Your task to perform on an android device: Open the phone app and click the voicemail tab. Image 0: 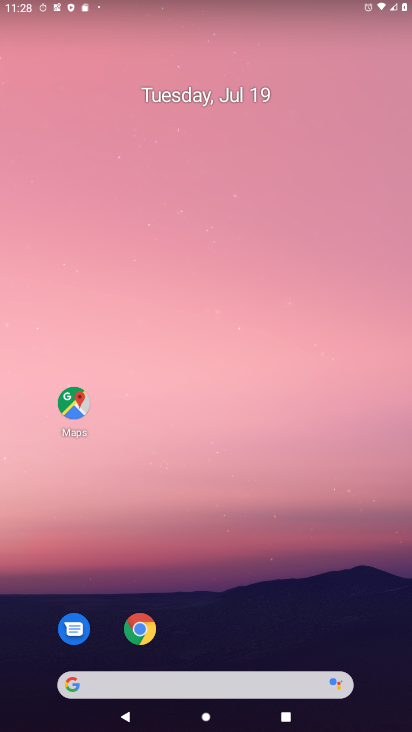
Step 0: drag from (254, 560) to (184, 73)
Your task to perform on an android device: Open the phone app and click the voicemail tab. Image 1: 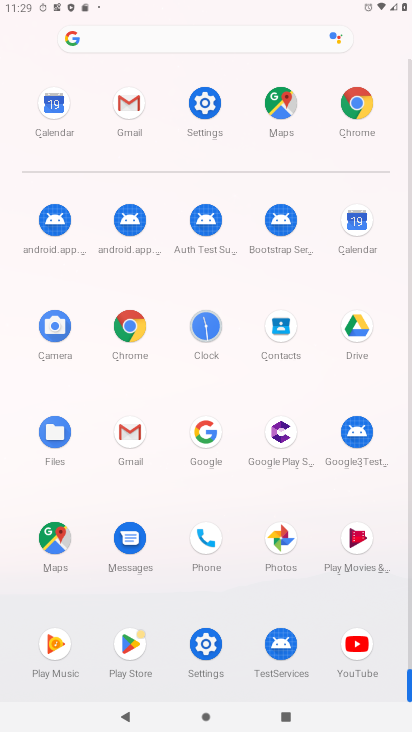
Step 1: click (204, 535)
Your task to perform on an android device: Open the phone app and click the voicemail tab. Image 2: 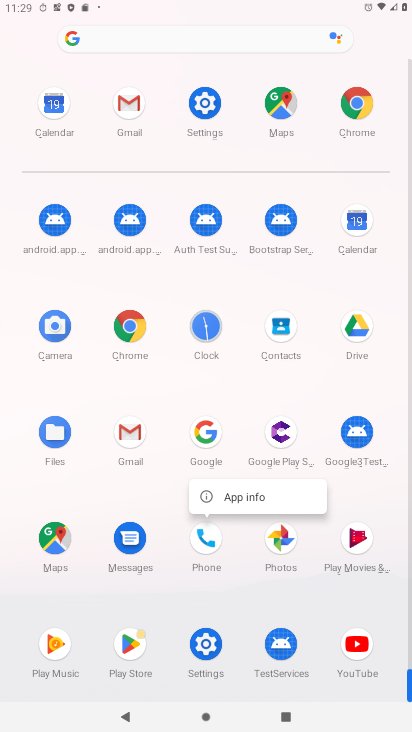
Step 2: click (208, 539)
Your task to perform on an android device: Open the phone app and click the voicemail tab. Image 3: 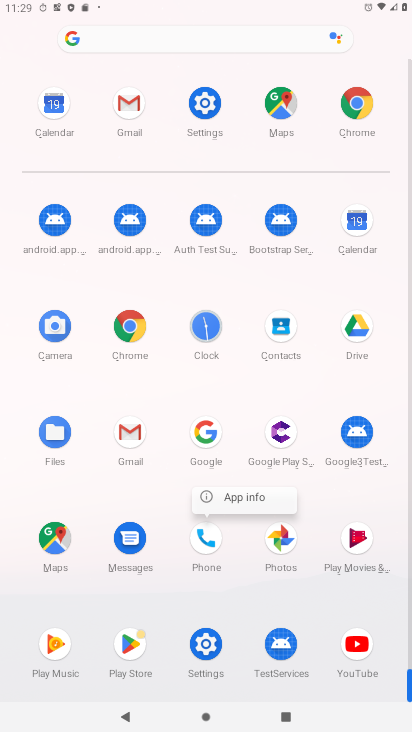
Step 3: click (208, 539)
Your task to perform on an android device: Open the phone app and click the voicemail tab. Image 4: 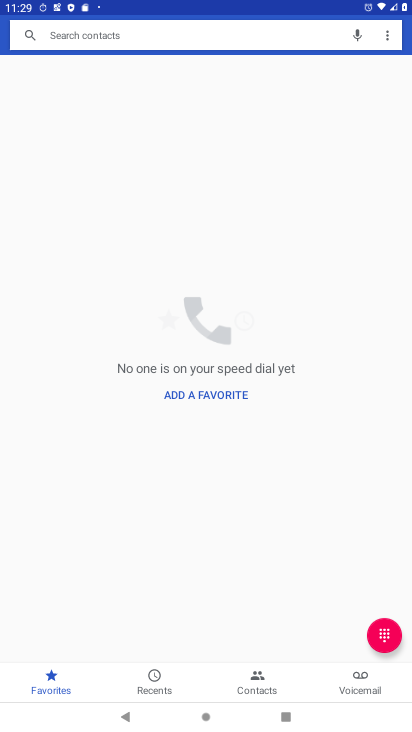
Step 4: click (357, 684)
Your task to perform on an android device: Open the phone app and click the voicemail tab. Image 5: 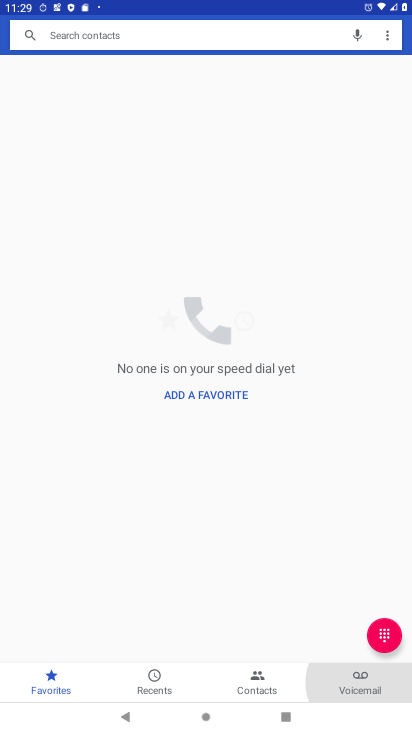
Step 5: click (358, 684)
Your task to perform on an android device: Open the phone app and click the voicemail tab. Image 6: 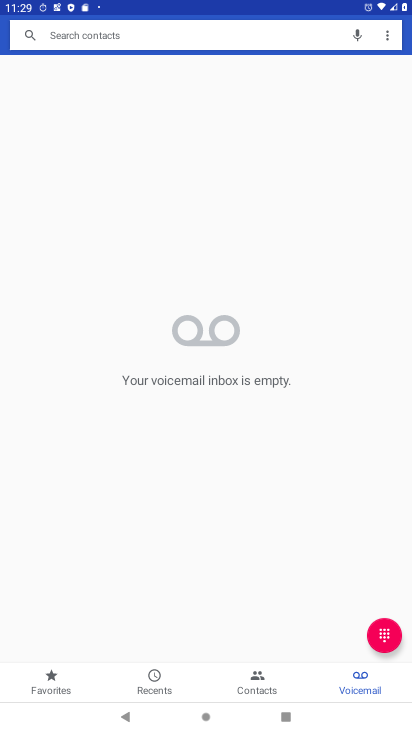
Step 6: task complete